Your task to perform on an android device: find photos in the google photos app Image 0: 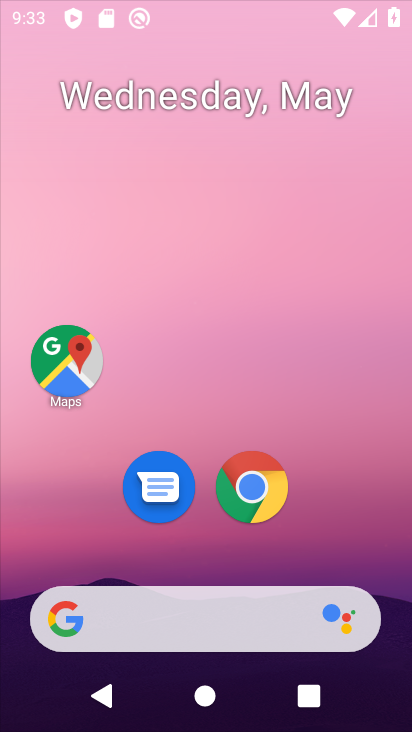
Step 0: click (214, 49)
Your task to perform on an android device: find photos in the google photos app Image 1: 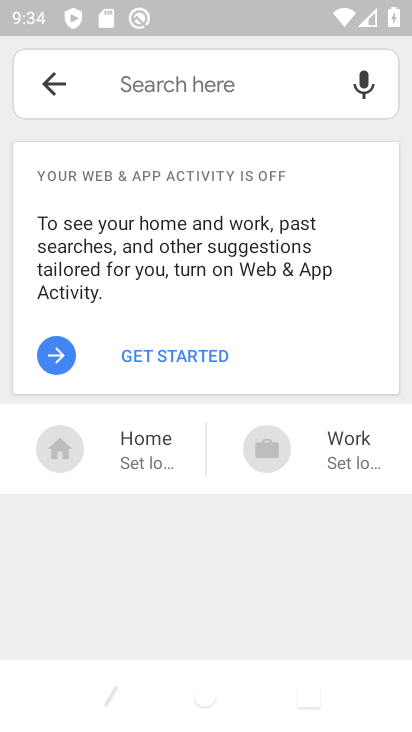
Step 1: press home button
Your task to perform on an android device: find photos in the google photos app Image 2: 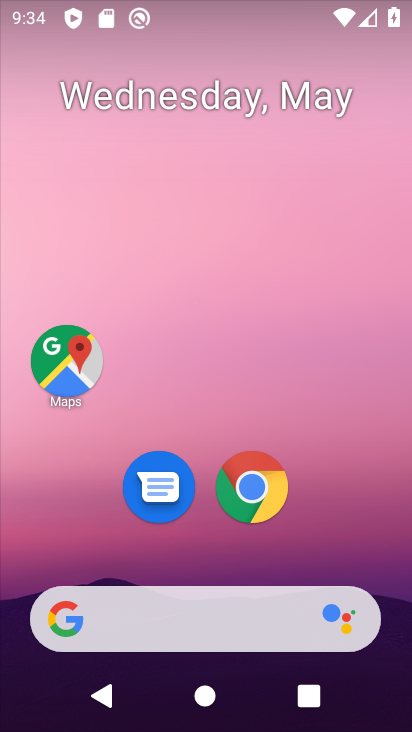
Step 2: drag from (215, 659) to (236, 72)
Your task to perform on an android device: find photos in the google photos app Image 3: 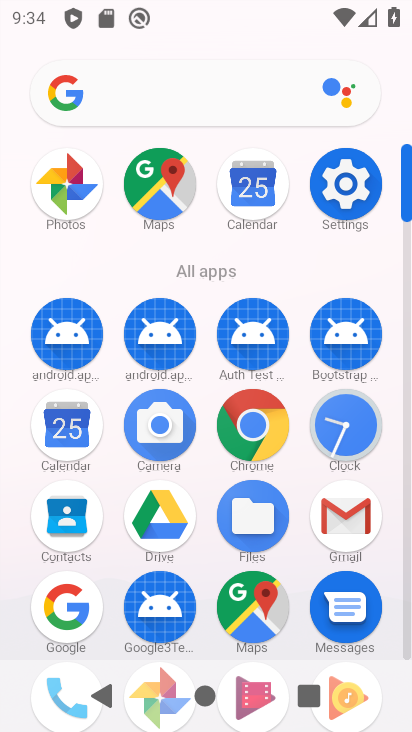
Step 3: drag from (210, 556) to (196, 406)
Your task to perform on an android device: find photos in the google photos app Image 4: 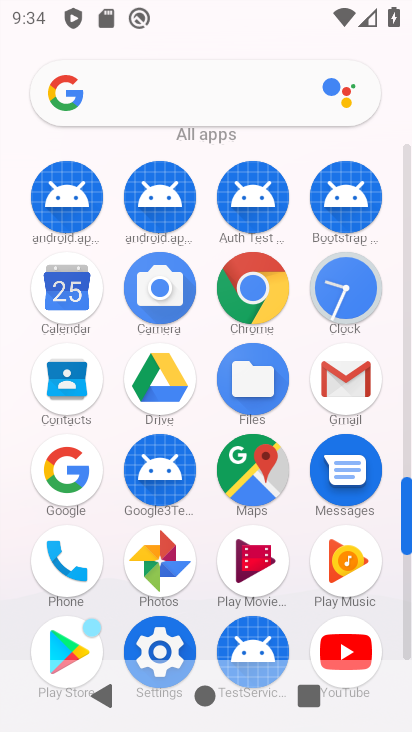
Step 4: click (174, 566)
Your task to perform on an android device: find photos in the google photos app Image 5: 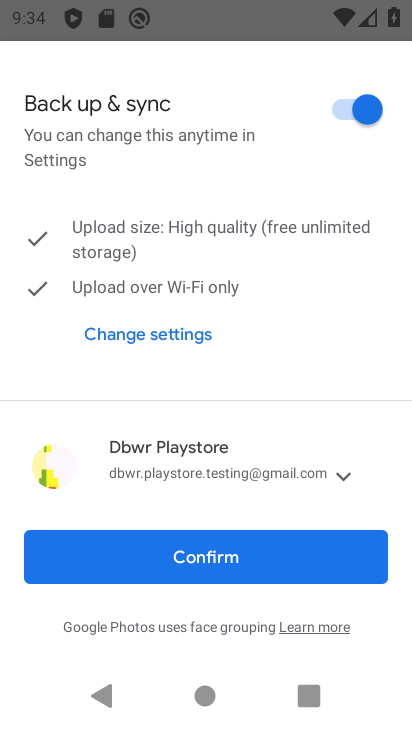
Step 5: click (189, 554)
Your task to perform on an android device: find photos in the google photos app Image 6: 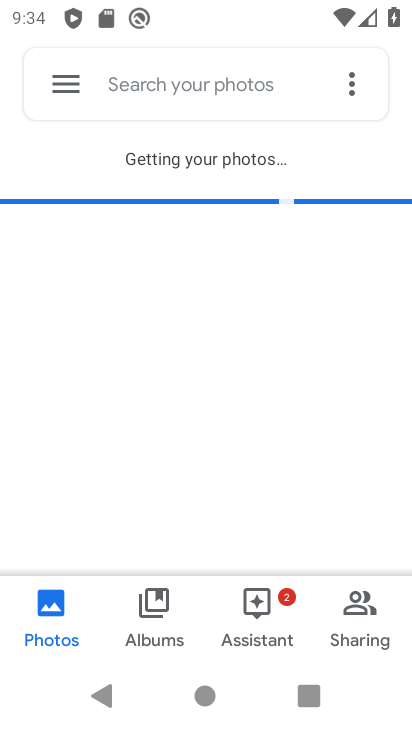
Step 6: click (51, 72)
Your task to perform on an android device: find photos in the google photos app Image 7: 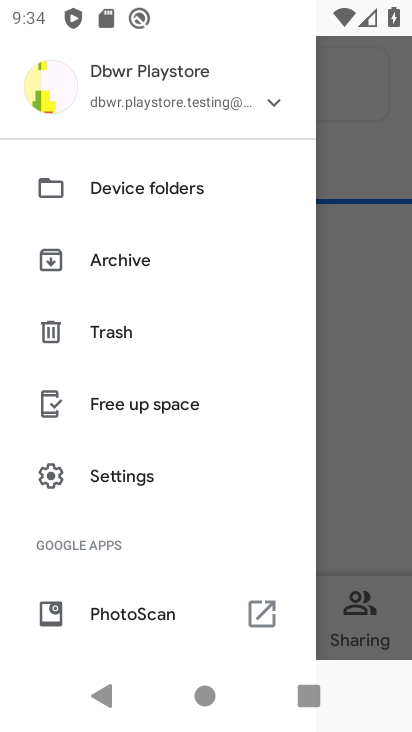
Step 7: click (346, 316)
Your task to perform on an android device: find photos in the google photos app Image 8: 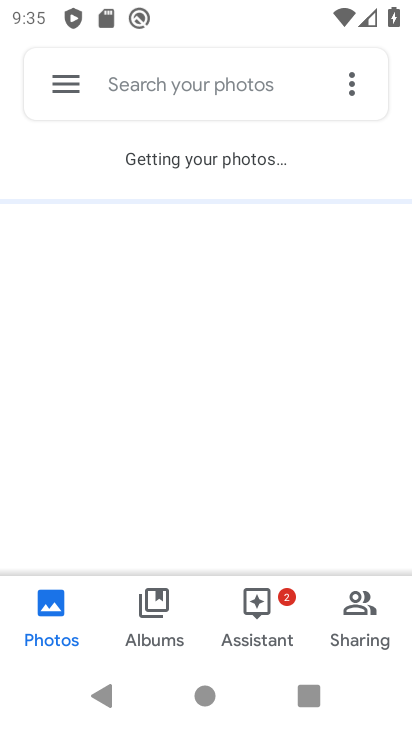
Step 8: click (249, 320)
Your task to perform on an android device: find photos in the google photos app Image 9: 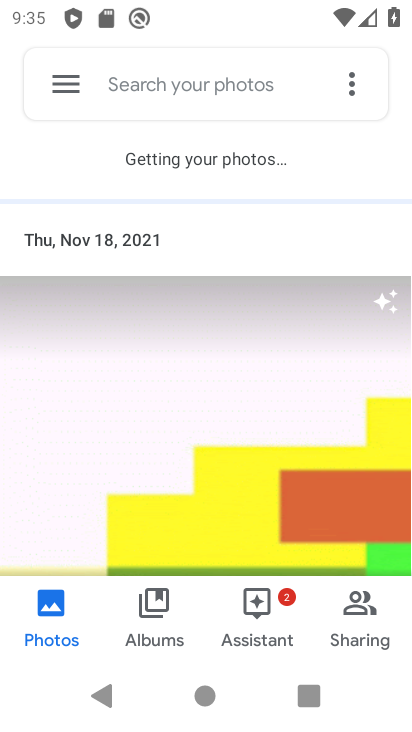
Step 9: task complete